Your task to perform on an android device: find snoozed emails in the gmail app Image 0: 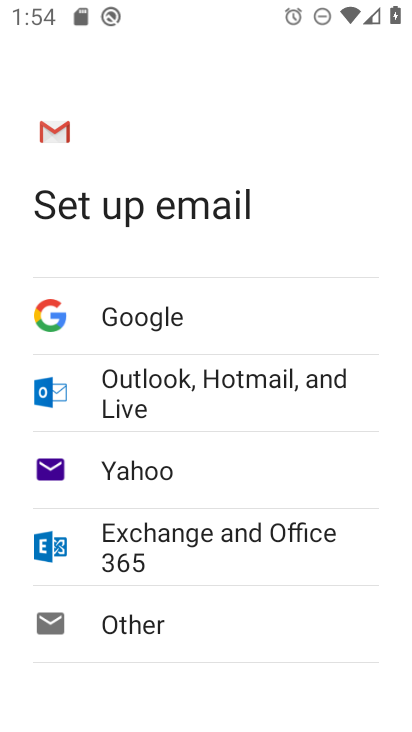
Step 0: press home button
Your task to perform on an android device: find snoozed emails in the gmail app Image 1: 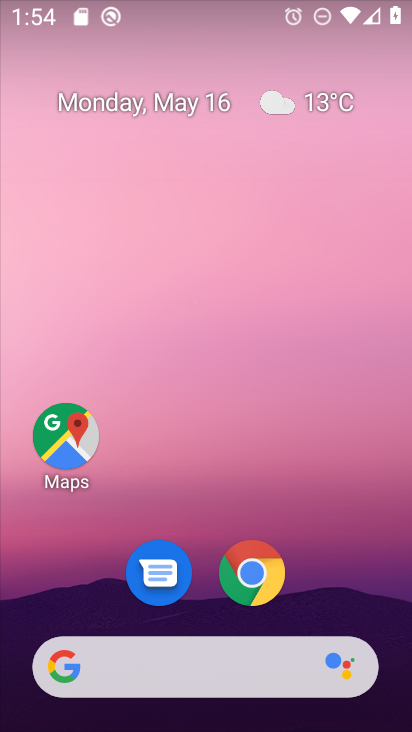
Step 1: drag from (152, 683) to (163, 259)
Your task to perform on an android device: find snoozed emails in the gmail app Image 2: 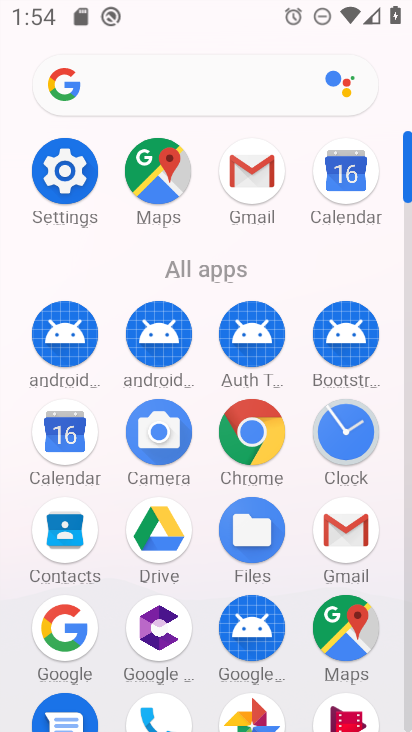
Step 2: click (331, 512)
Your task to perform on an android device: find snoozed emails in the gmail app Image 3: 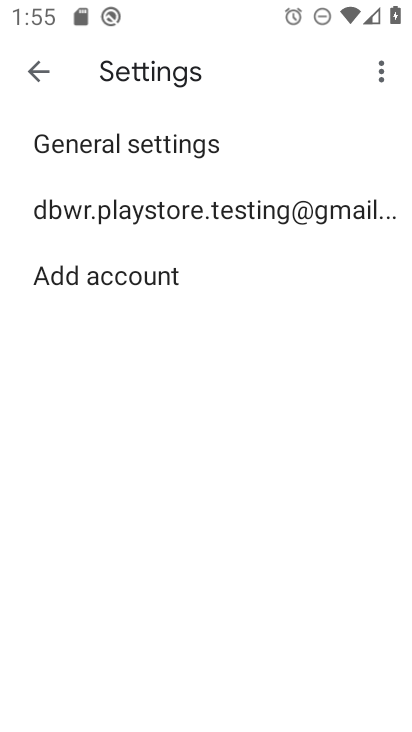
Step 3: press home button
Your task to perform on an android device: find snoozed emails in the gmail app Image 4: 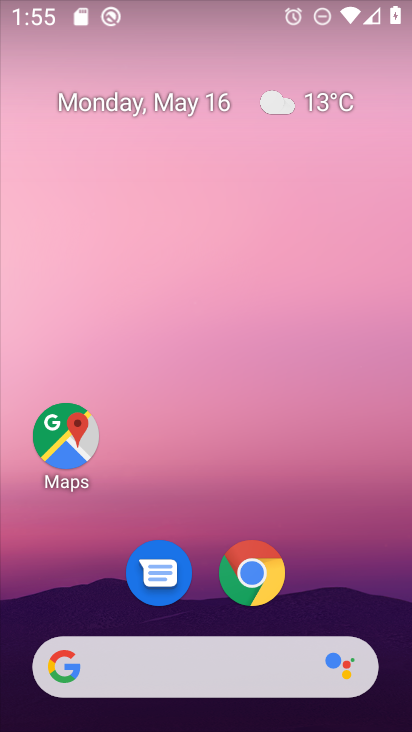
Step 4: drag from (204, 657) to (179, 186)
Your task to perform on an android device: find snoozed emails in the gmail app Image 5: 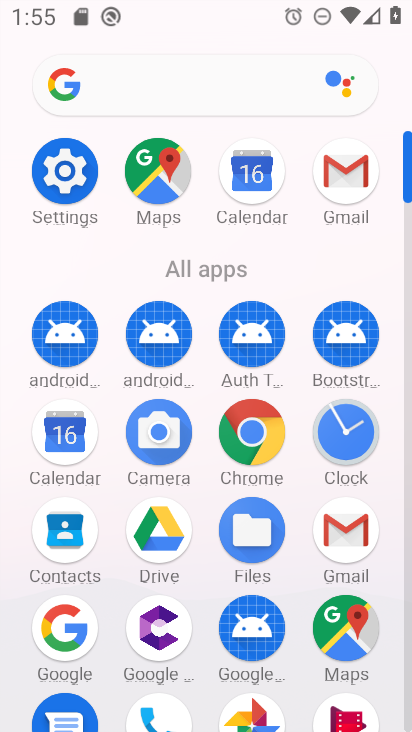
Step 5: click (351, 522)
Your task to perform on an android device: find snoozed emails in the gmail app Image 6: 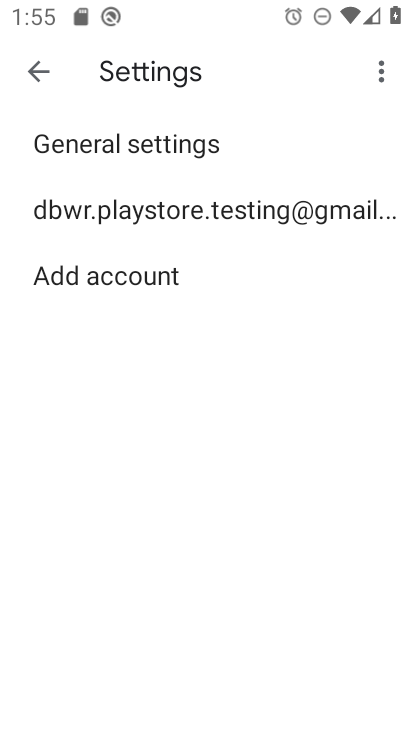
Step 6: click (43, 86)
Your task to perform on an android device: find snoozed emails in the gmail app Image 7: 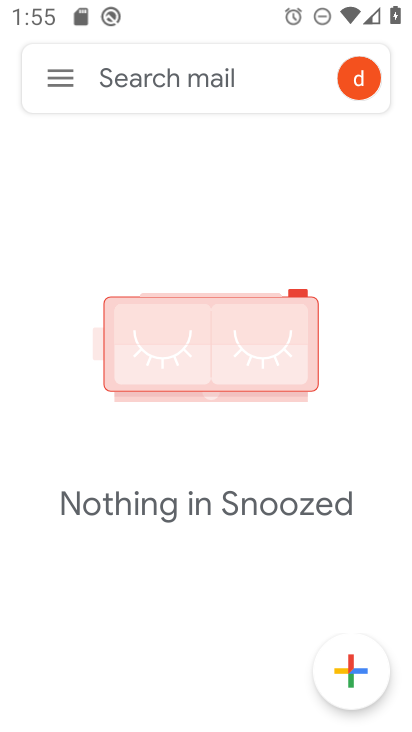
Step 7: click (66, 82)
Your task to perform on an android device: find snoozed emails in the gmail app Image 8: 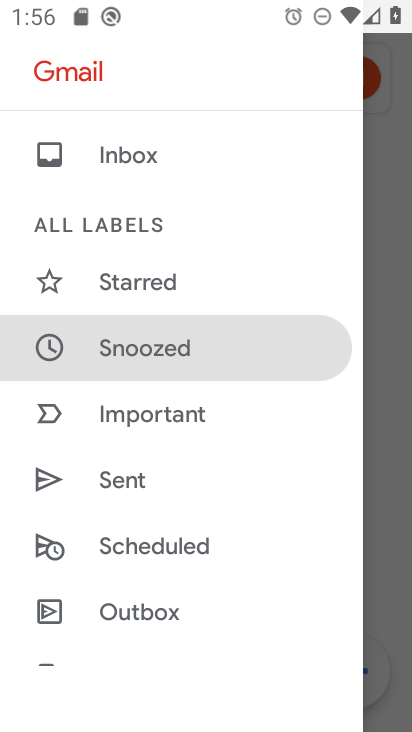
Step 8: drag from (131, 542) to (116, 408)
Your task to perform on an android device: find snoozed emails in the gmail app Image 9: 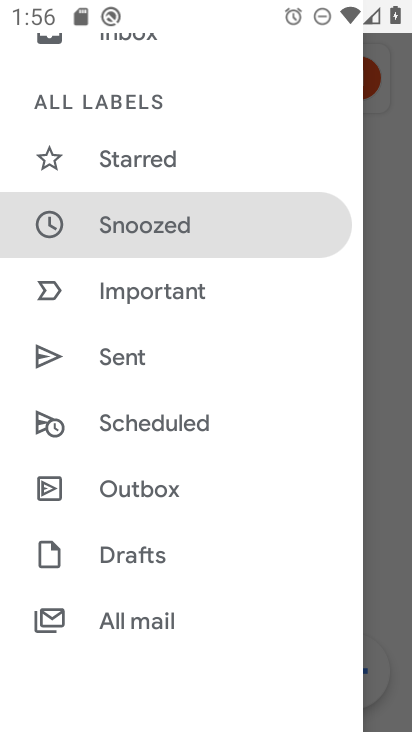
Step 9: click (119, 228)
Your task to perform on an android device: find snoozed emails in the gmail app Image 10: 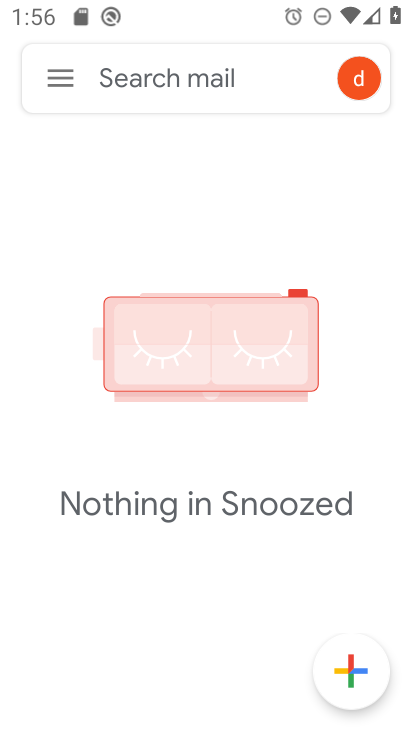
Step 10: task complete